Your task to perform on an android device: Open the phone app and click the voicemail tab. Image 0: 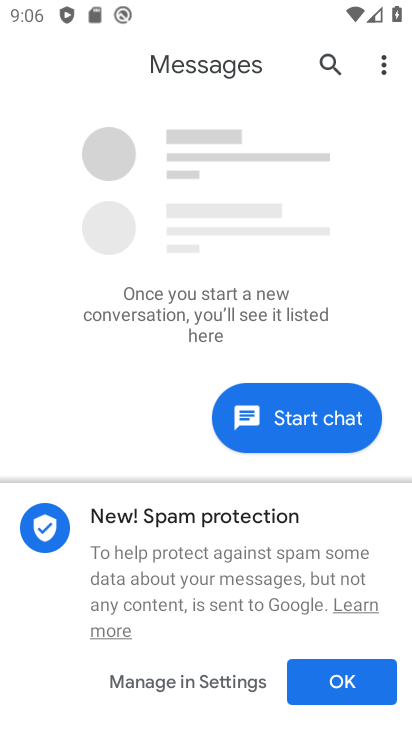
Step 0: press home button
Your task to perform on an android device: Open the phone app and click the voicemail tab. Image 1: 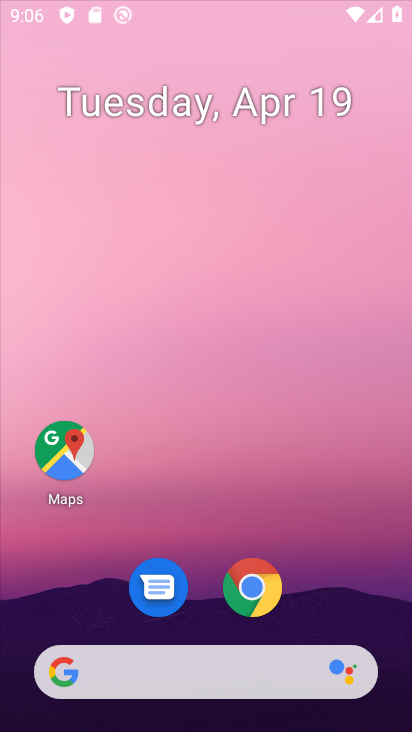
Step 1: drag from (267, 512) to (287, 98)
Your task to perform on an android device: Open the phone app and click the voicemail tab. Image 2: 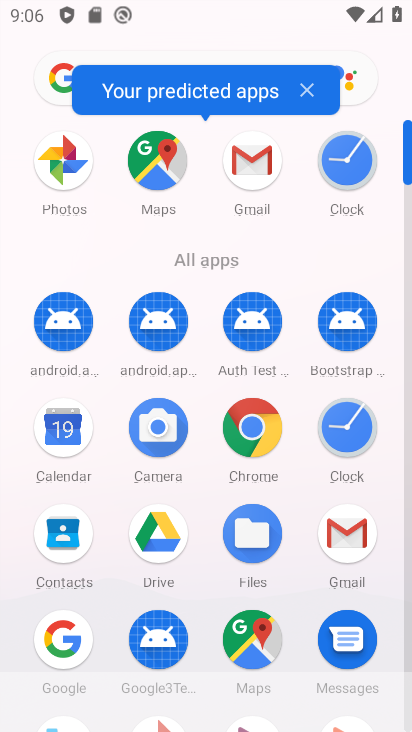
Step 2: drag from (203, 674) to (259, 209)
Your task to perform on an android device: Open the phone app and click the voicemail tab. Image 3: 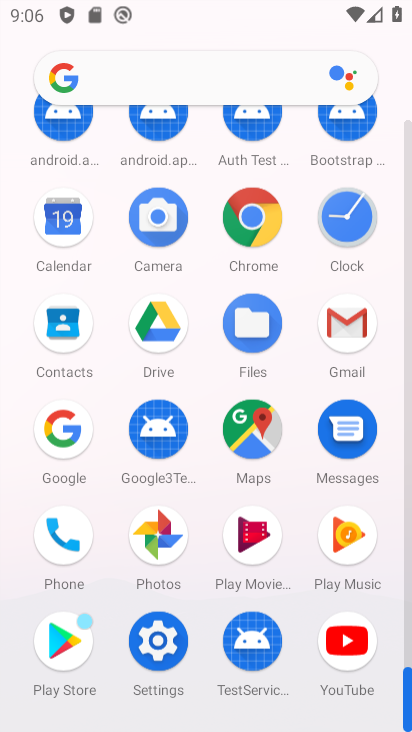
Step 3: click (69, 541)
Your task to perform on an android device: Open the phone app and click the voicemail tab. Image 4: 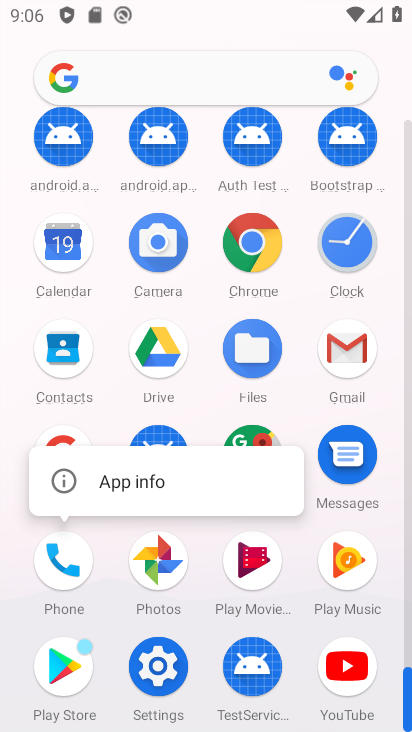
Step 4: click (77, 554)
Your task to perform on an android device: Open the phone app and click the voicemail tab. Image 5: 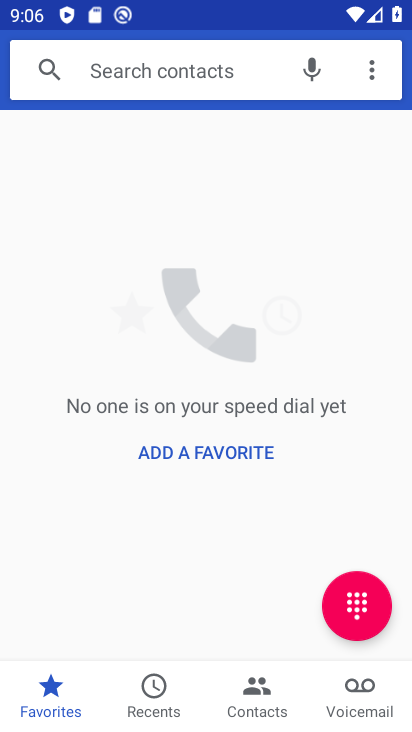
Step 5: click (368, 708)
Your task to perform on an android device: Open the phone app and click the voicemail tab. Image 6: 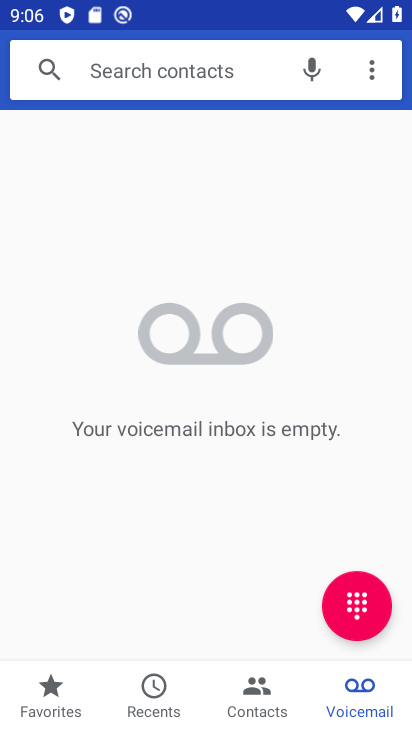
Step 6: task complete